Your task to perform on an android device: Do I have any events today? Image 0: 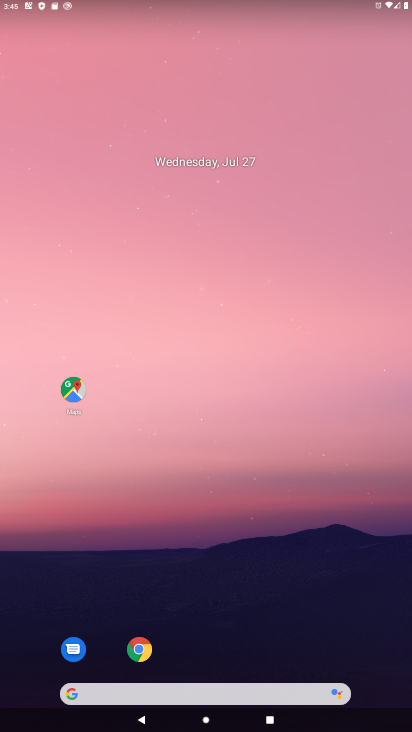
Step 0: drag from (389, 678) to (312, 254)
Your task to perform on an android device: Do I have any events today? Image 1: 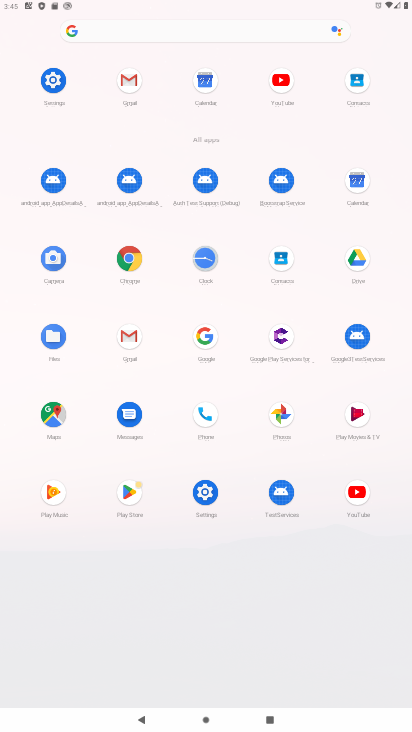
Step 1: click (356, 183)
Your task to perform on an android device: Do I have any events today? Image 2: 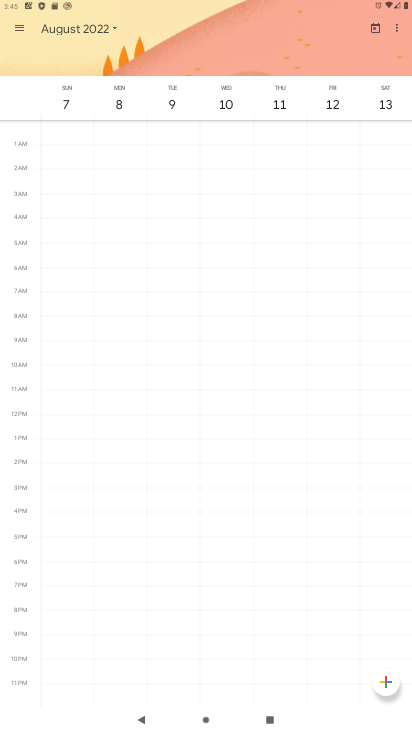
Step 2: click (22, 29)
Your task to perform on an android device: Do I have any events today? Image 3: 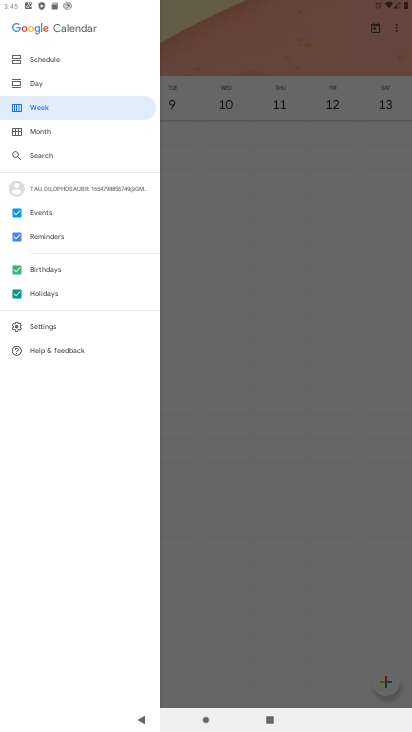
Step 3: click (40, 79)
Your task to perform on an android device: Do I have any events today? Image 4: 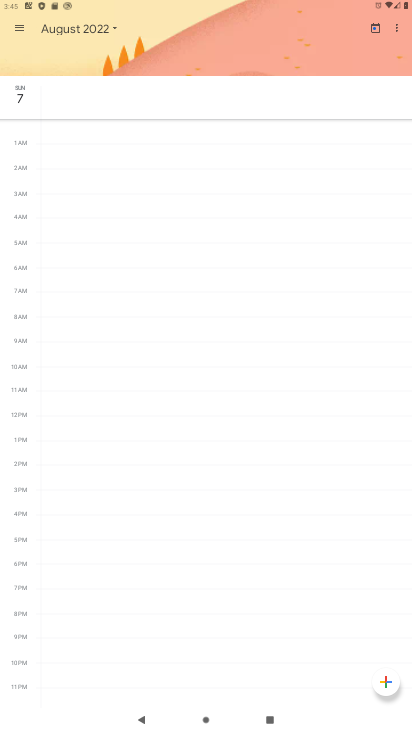
Step 4: click (103, 28)
Your task to perform on an android device: Do I have any events today? Image 5: 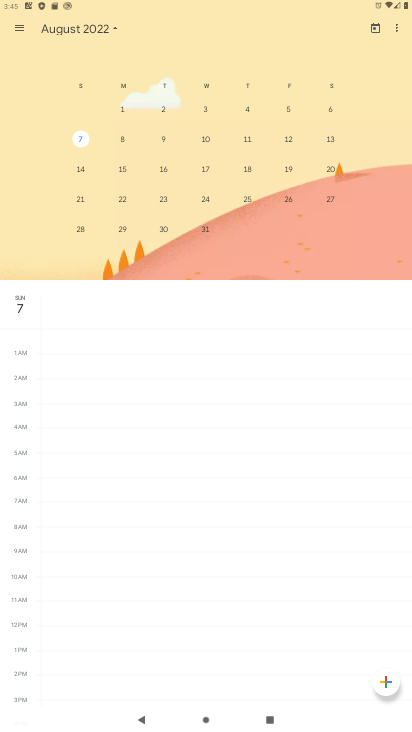
Step 5: drag from (77, 170) to (376, 157)
Your task to perform on an android device: Do I have any events today? Image 6: 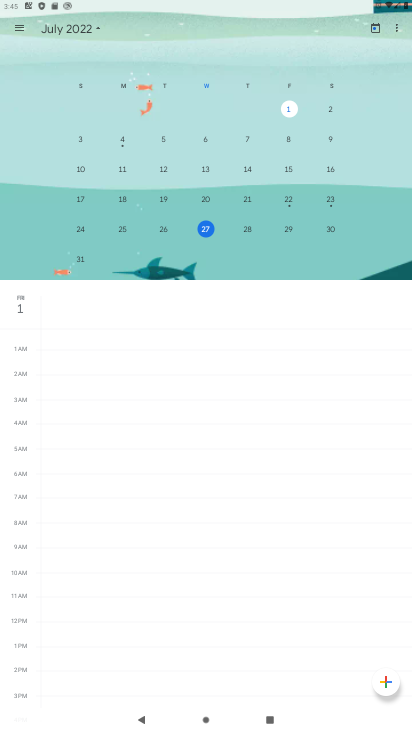
Step 6: click (204, 227)
Your task to perform on an android device: Do I have any events today? Image 7: 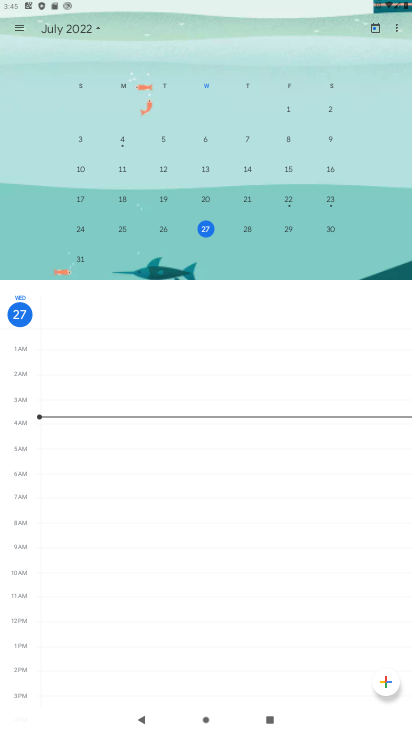
Step 7: task complete